Your task to perform on an android device: See recent photos Image 0: 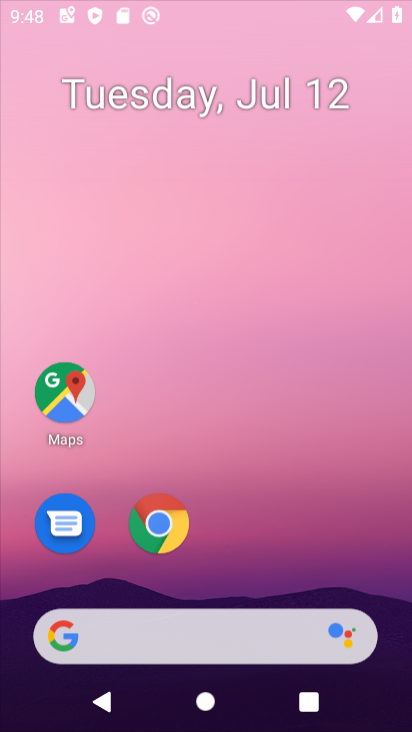
Step 0: drag from (294, 527) to (292, 102)
Your task to perform on an android device: See recent photos Image 1: 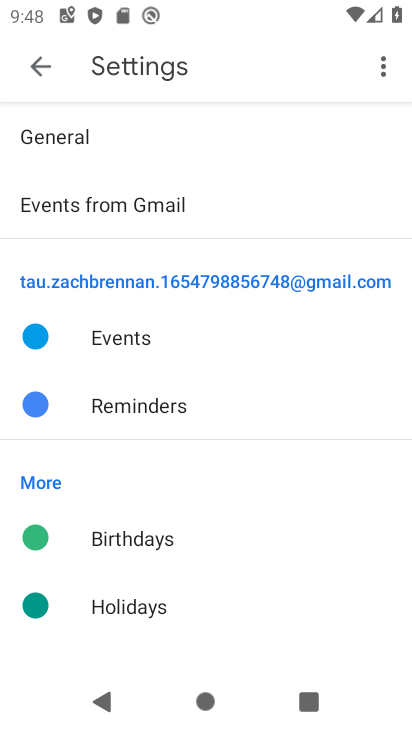
Step 1: press home button
Your task to perform on an android device: See recent photos Image 2: 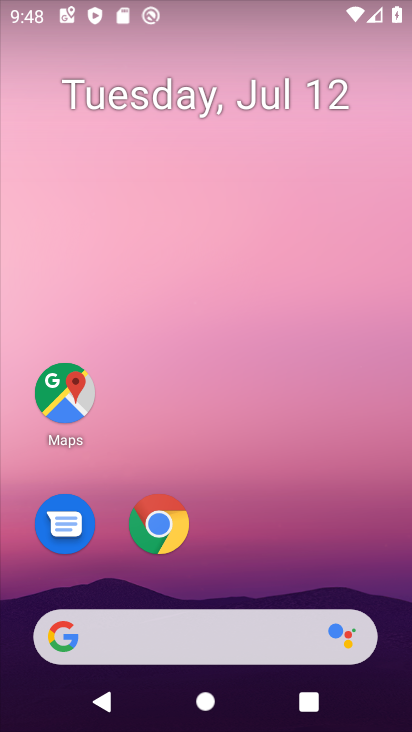
Step 2: drag from (281, 567) to (262, 116)
Your task to perform on an android device: See recent photos Image 3: 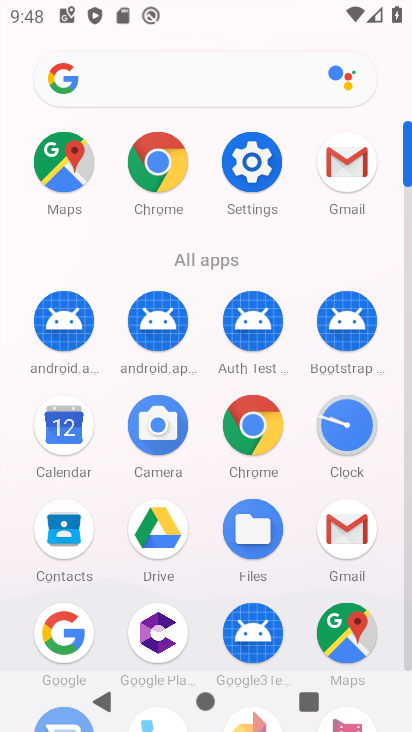
Step 3: drag from (207, 485) to (257, 161)
Your task to perform on an android device: See recent photos Image 4: 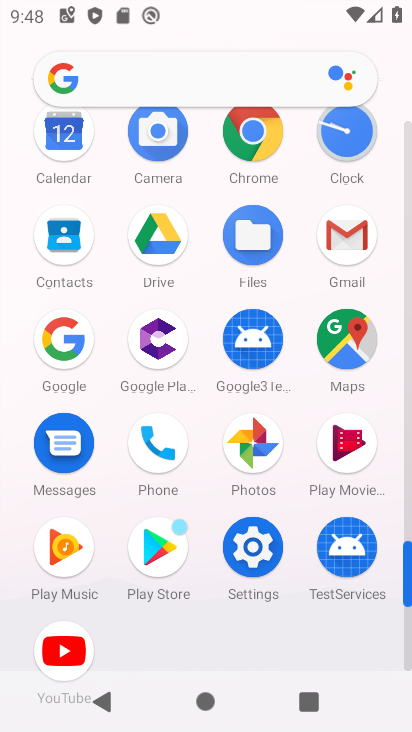
Step 4: click (260, 445)
Your task to perform on an android device: See recent photos Image 5: 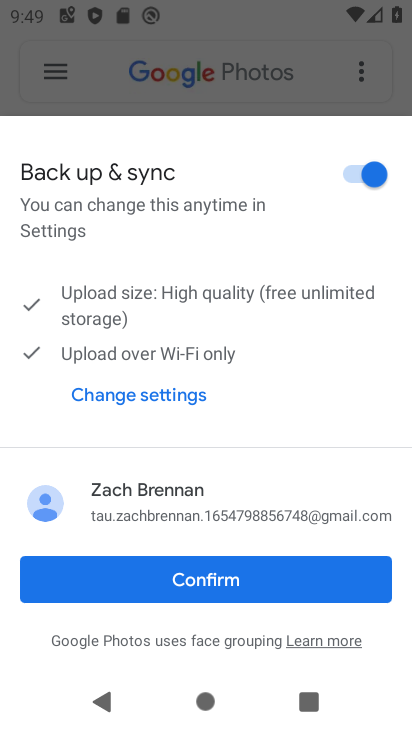
Step 5: click (261, 577)
Your task to perform on an android device: See recent photos Image 6: 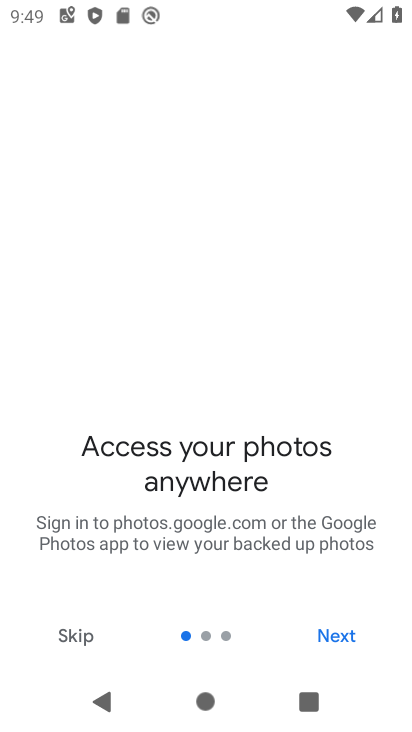
Step 6: click (329, 633)
Your task to perform on an android device: See recent photos Image 7: 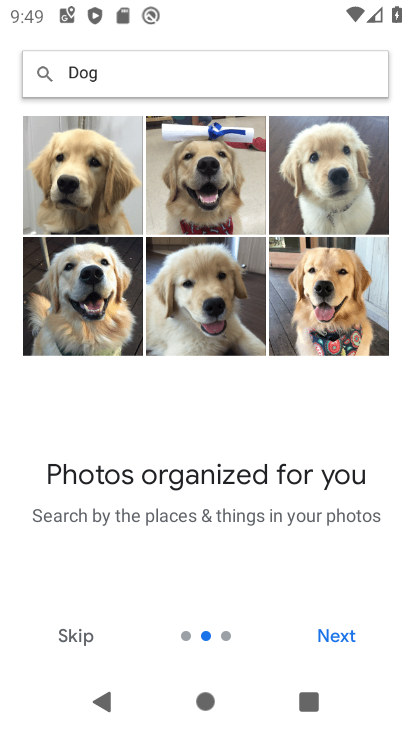
Step 7: click (329, 633)
Your task to perform on an android device: See recent photos Image 8: 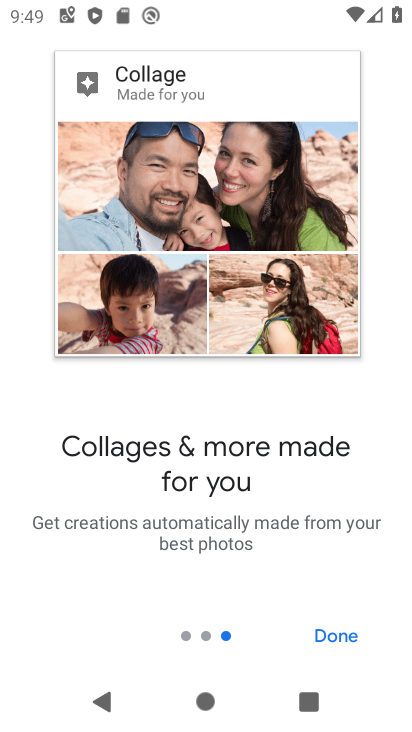
Step 8: click (329, 634)
Your task to perform on an android device: See recent photos Image 9: 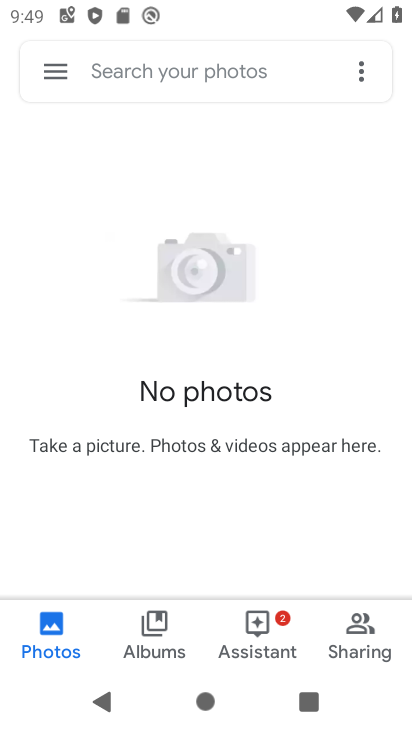
Step 9: task complete